Your task to perform on an android device: install app "Skype" Image 0: 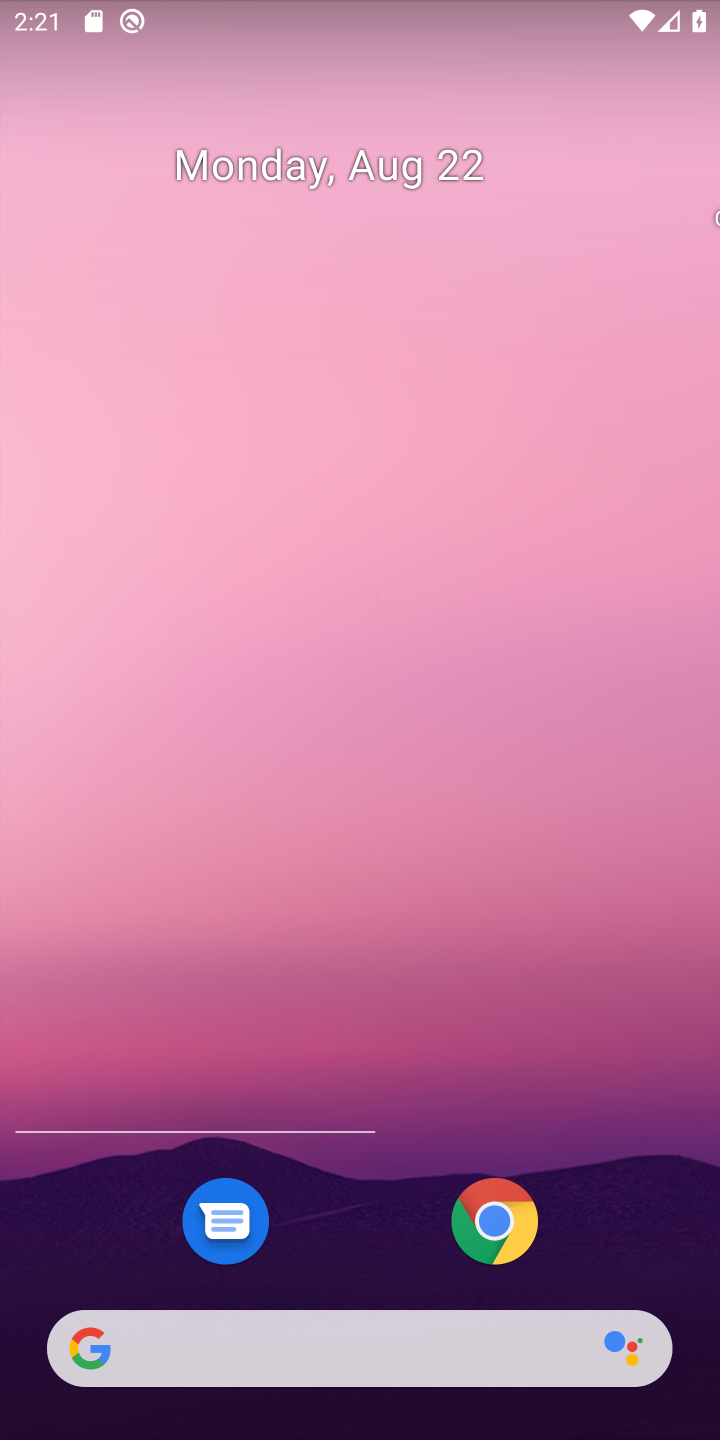
Step 0: press home button
Your task to perform on an android device: install app "Skype" Image 1: 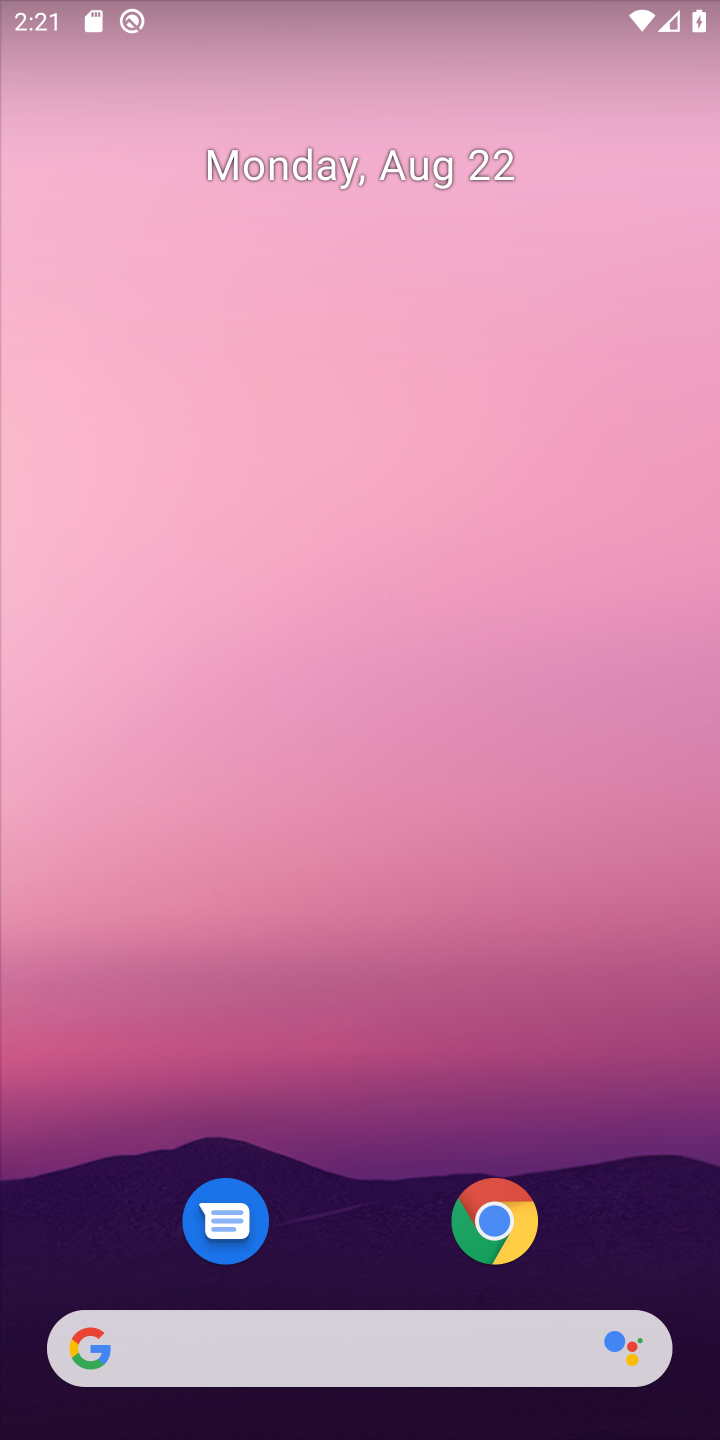
Step 1: drag from (363, 1230) to (329, 286)
Your task to perform on an android device: install app "Skype" Image 2: 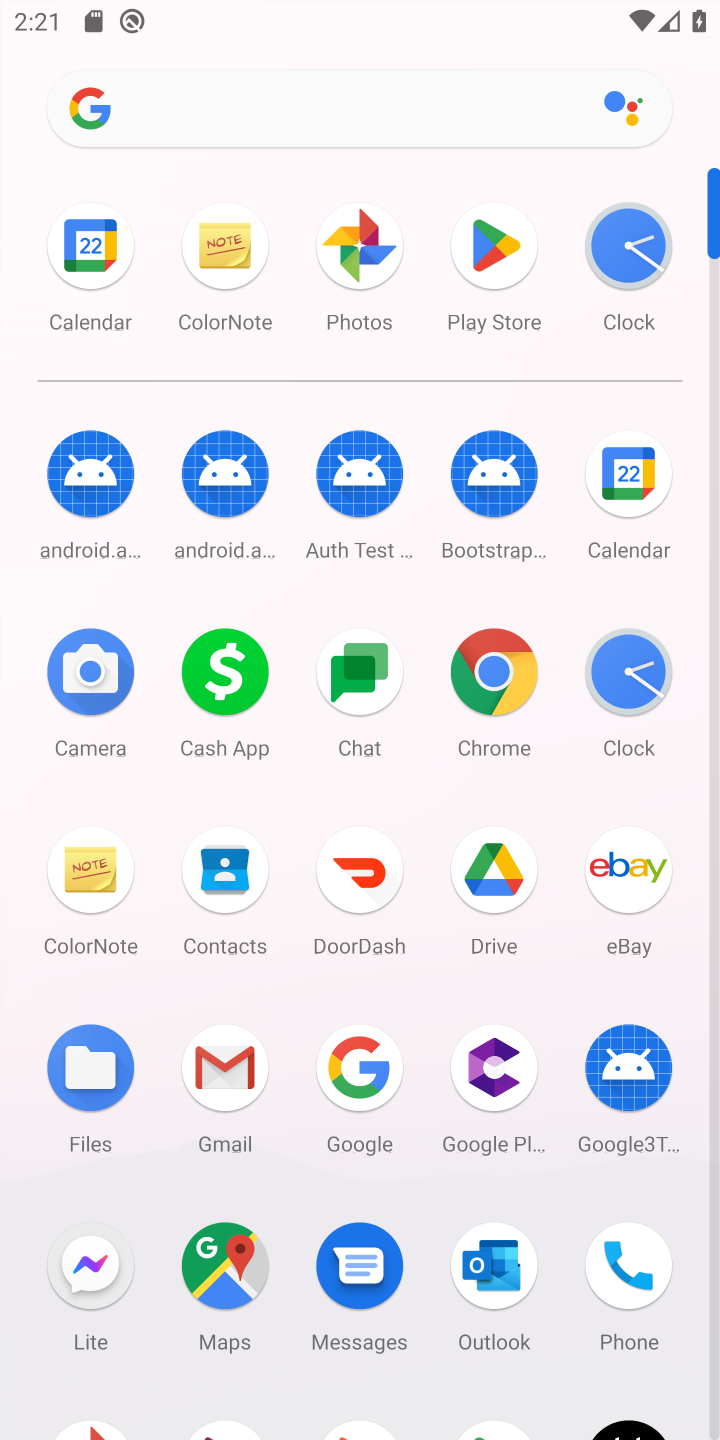
Step 2: click (495, 238)
Your task to perform on an android device: install app "Skype" Image 3: 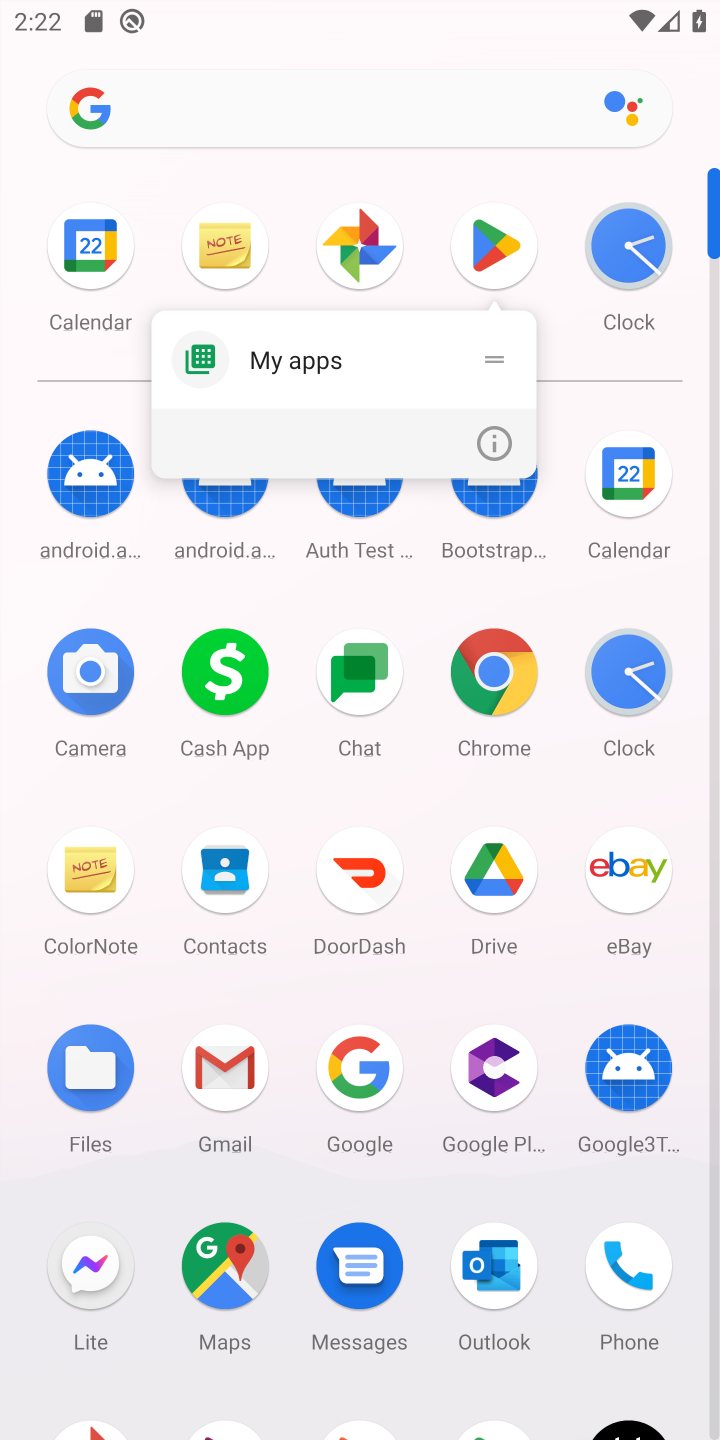
Step 3: click (495, 238)
Your task to perform on an android device: install app "Skype" Image 4: 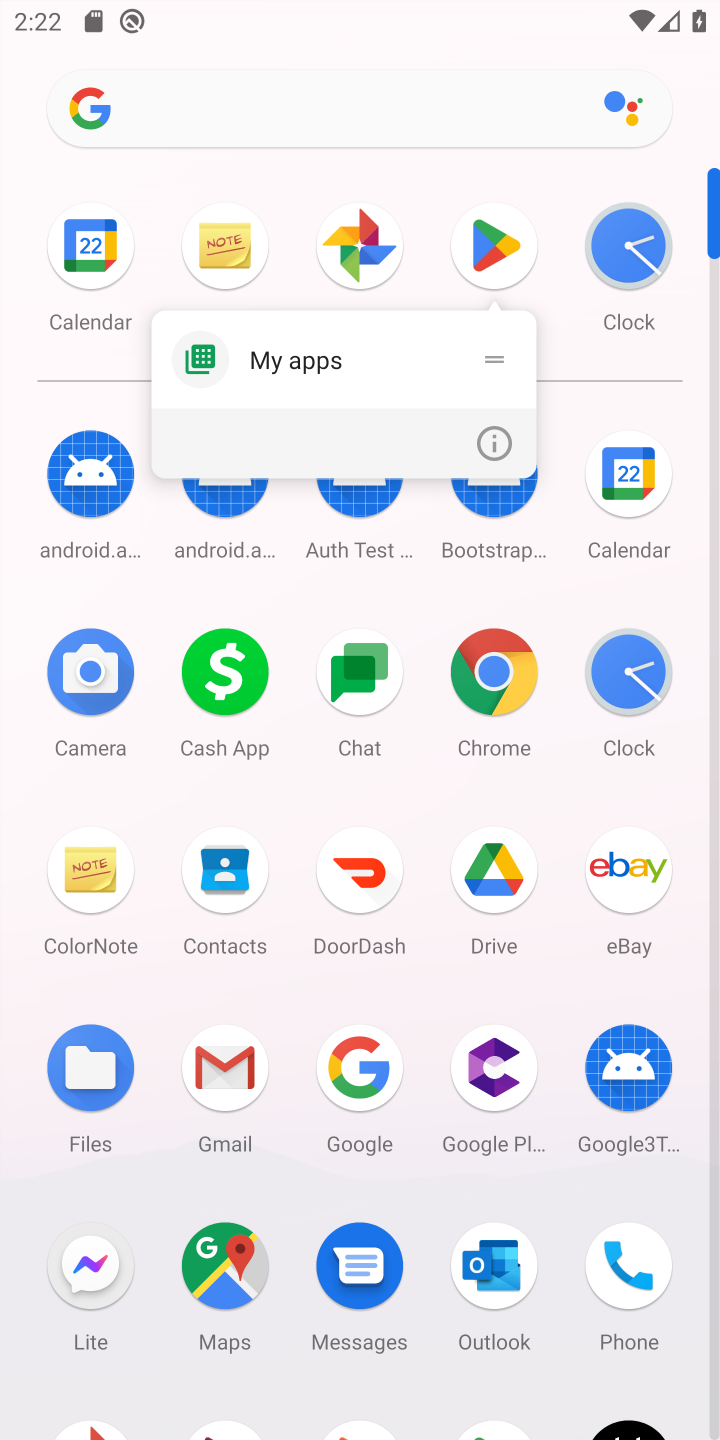
Step 4: drag from (312, 1199) to (391, 299)
Your task to perform on an android device: install app "Skype" Image 5: 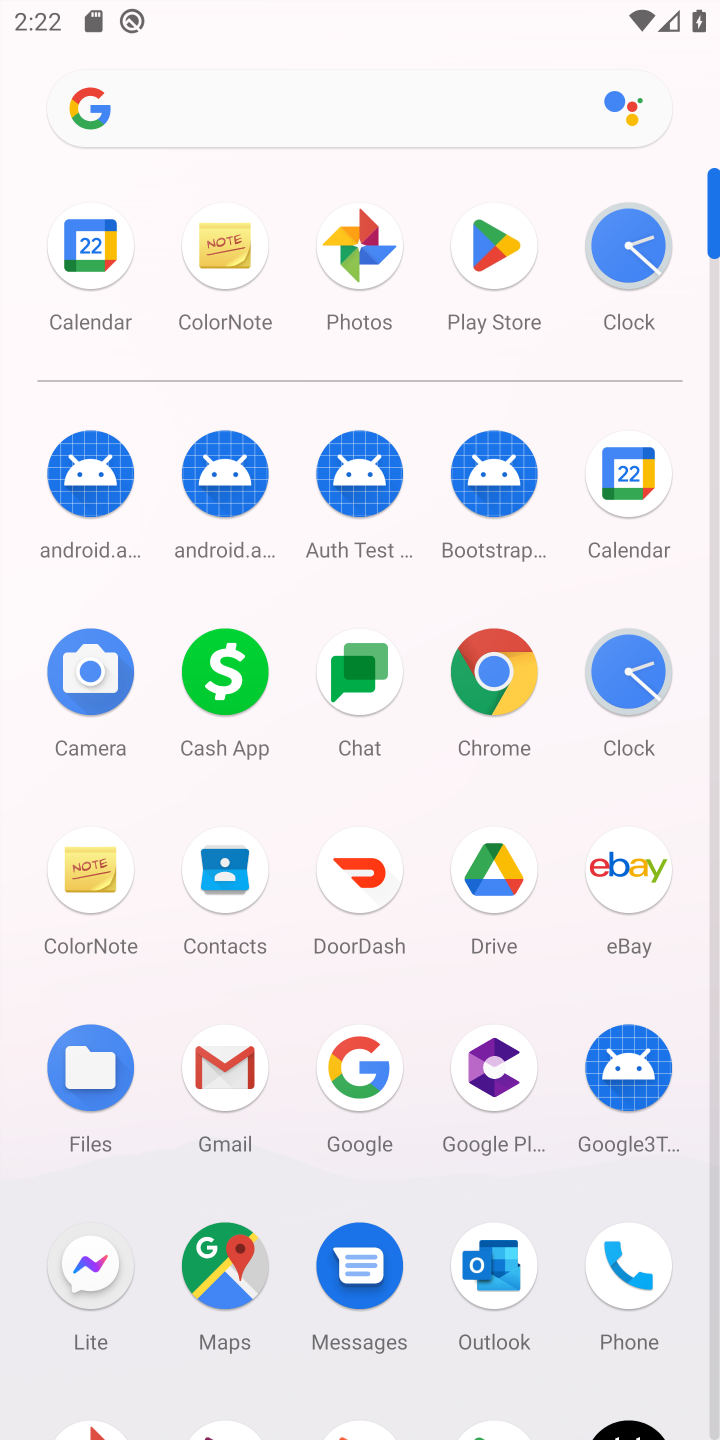
Step 5: drag from (434, 1164) to (422, 228)
Your task to perform on an android device: install app "Skype" Image 6: 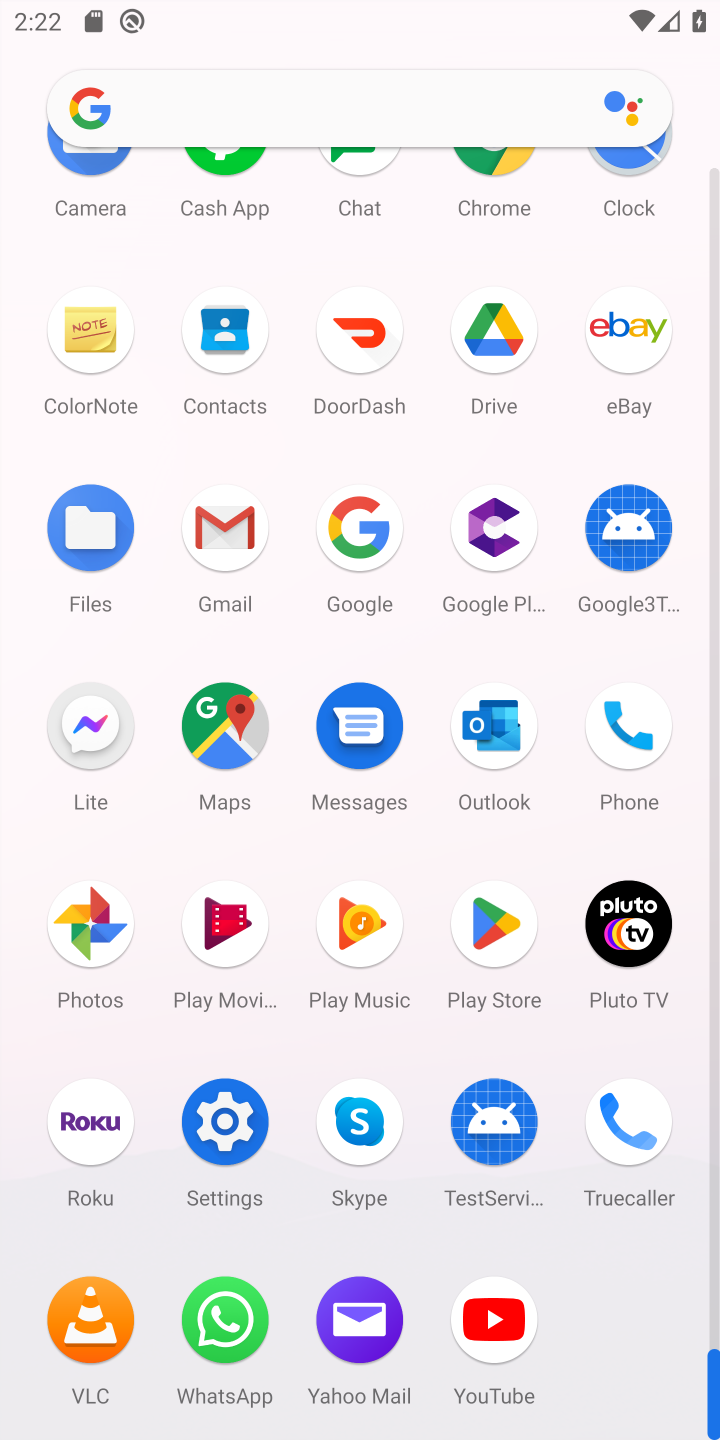
Step 6: click (497, 926)
Your task to perform on an android device: install app "Skype" Image 7: 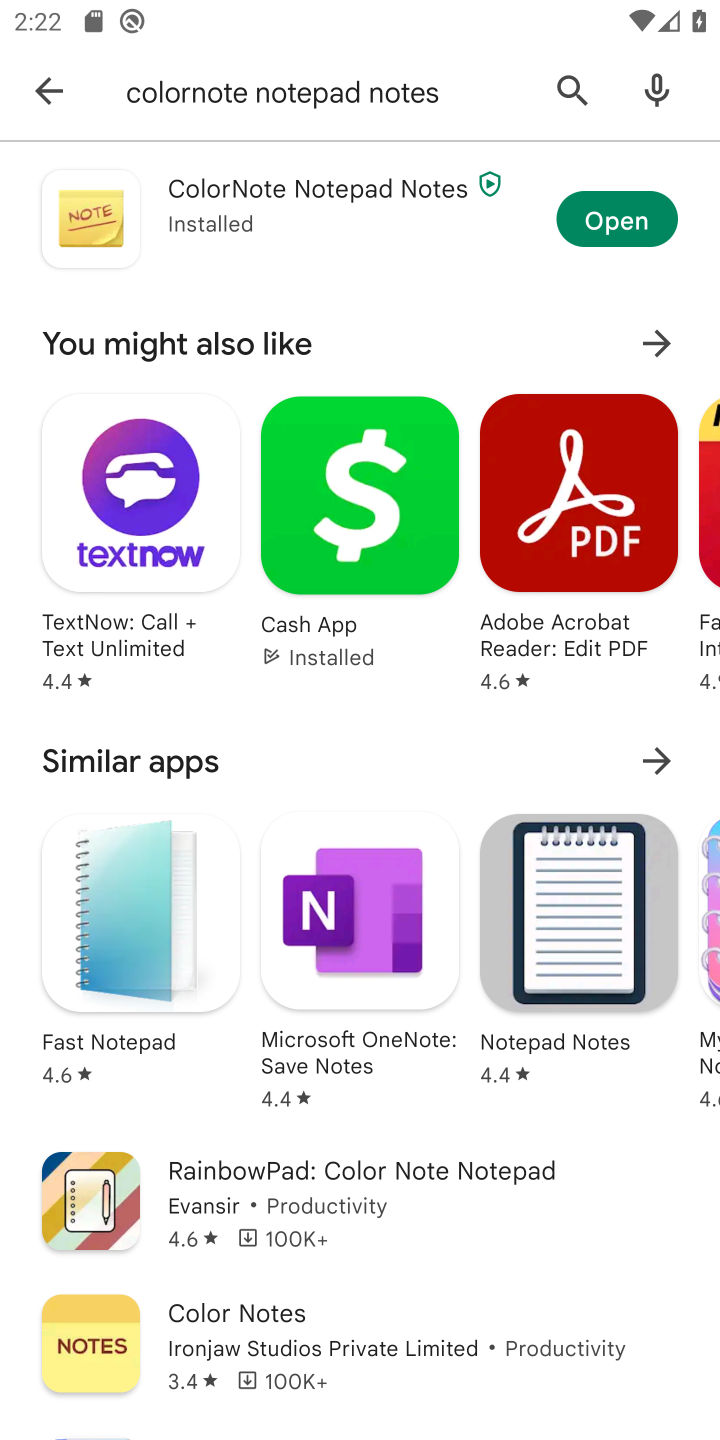
Step 7: click (549, 89)
Your task to perform on an android device: install app "Skype" Image 8: 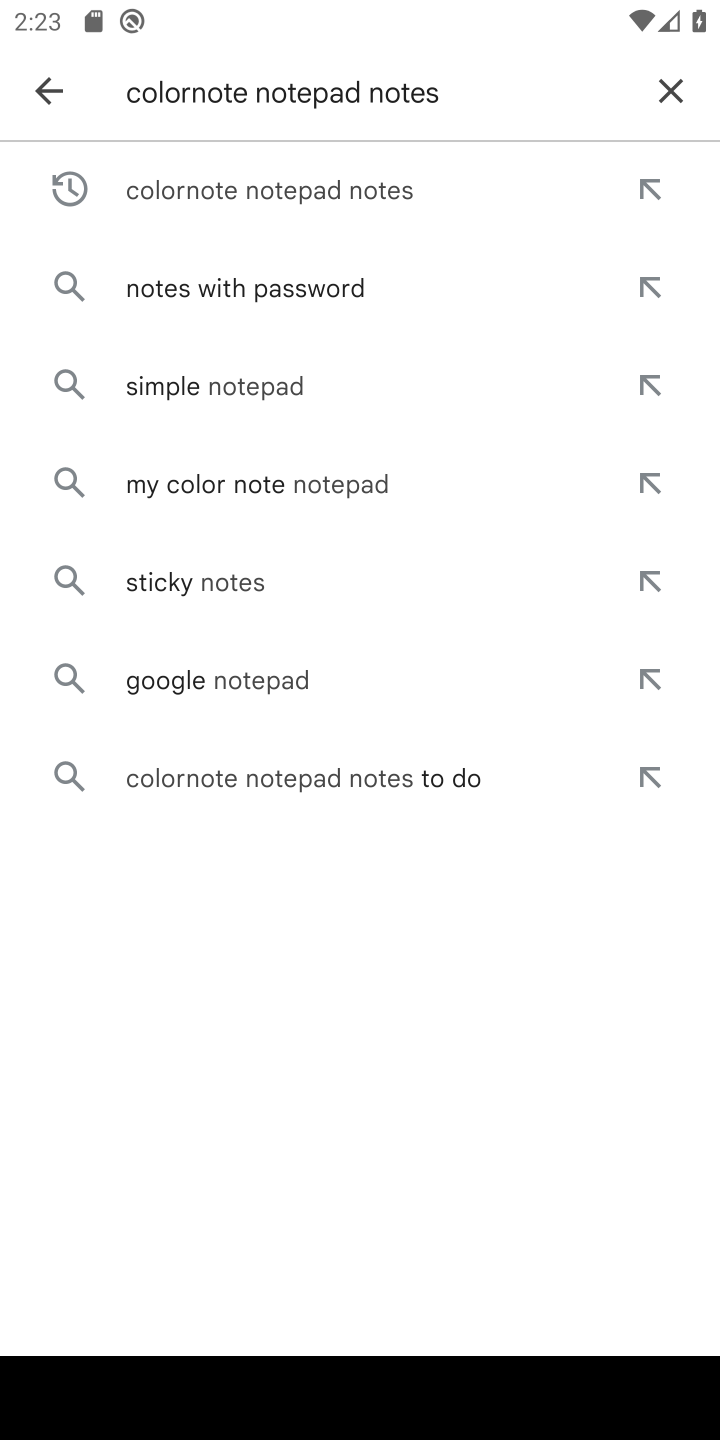
Step 8: click (657, 93)
Your task to perform on an android device: install app "Skype" Image 9: 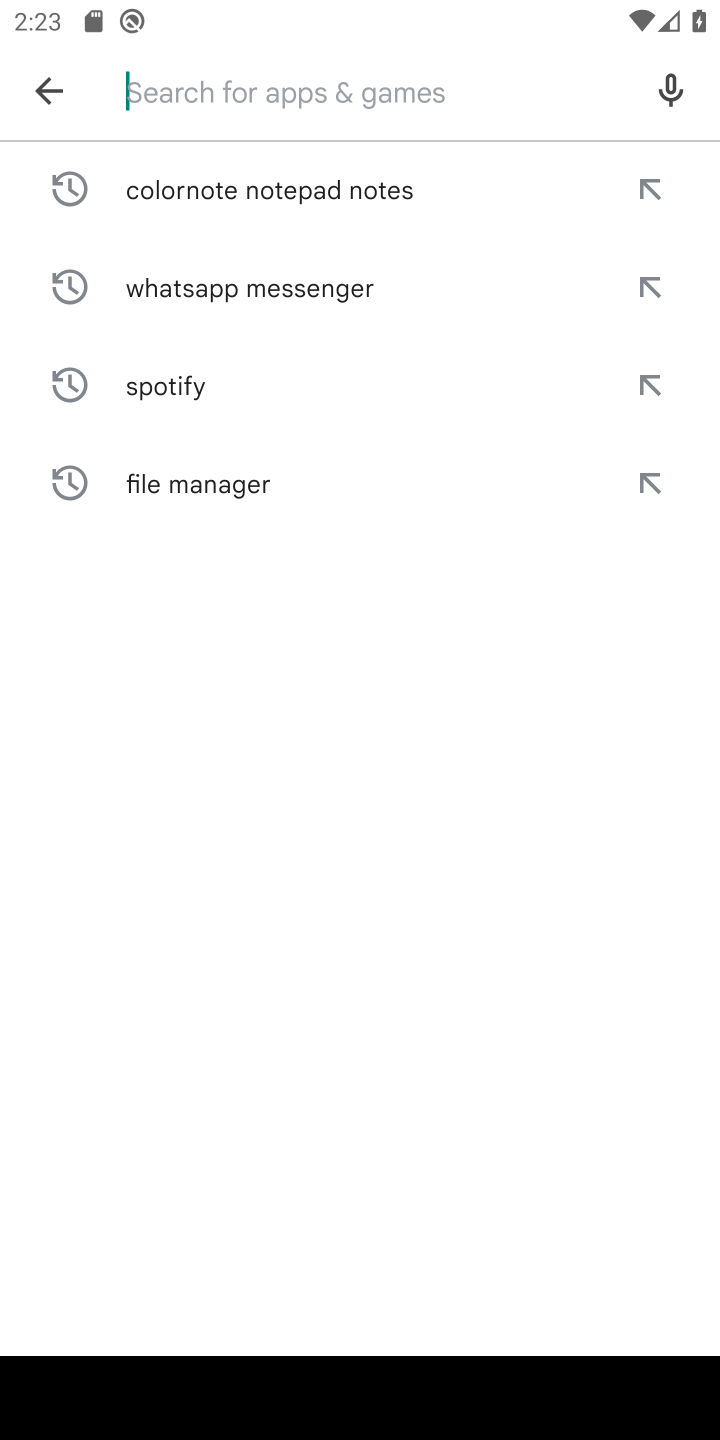
Step 9: type "Skype"
Your task to perform on an android device: install app "Skype" Image 10: 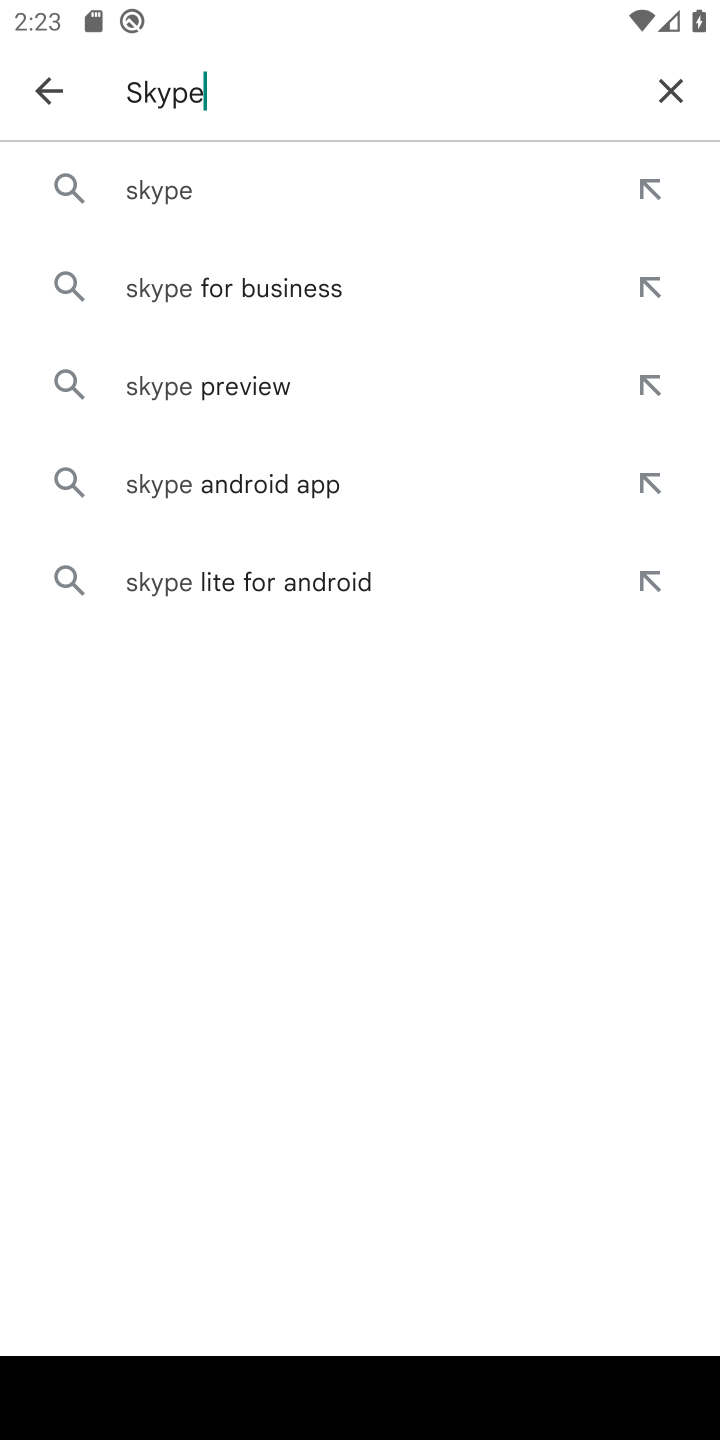
Step 10: click (225, 184)
Your task to perform on an android device: install app "Skype" Image 11: 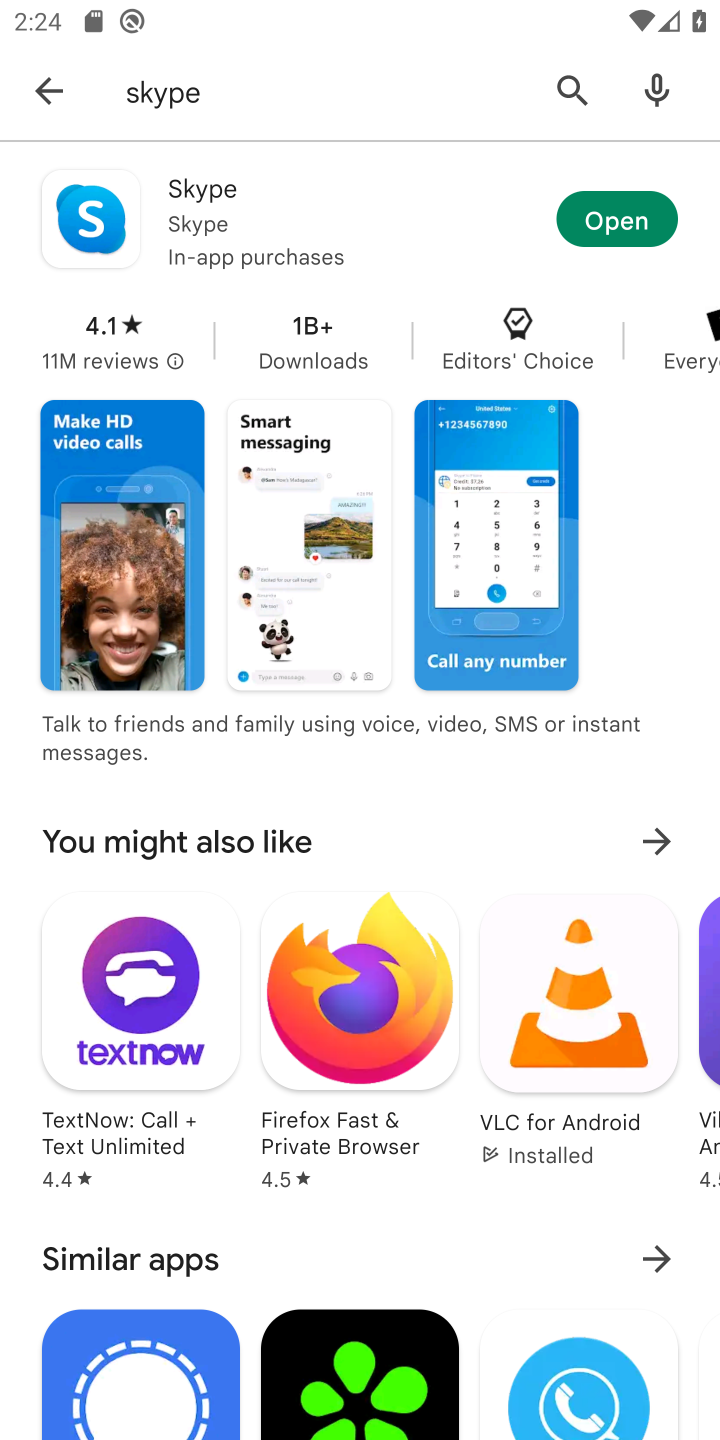
Step 11: click (609, 216)
Your task to perform on an android device: install app "Skype" Image 12: 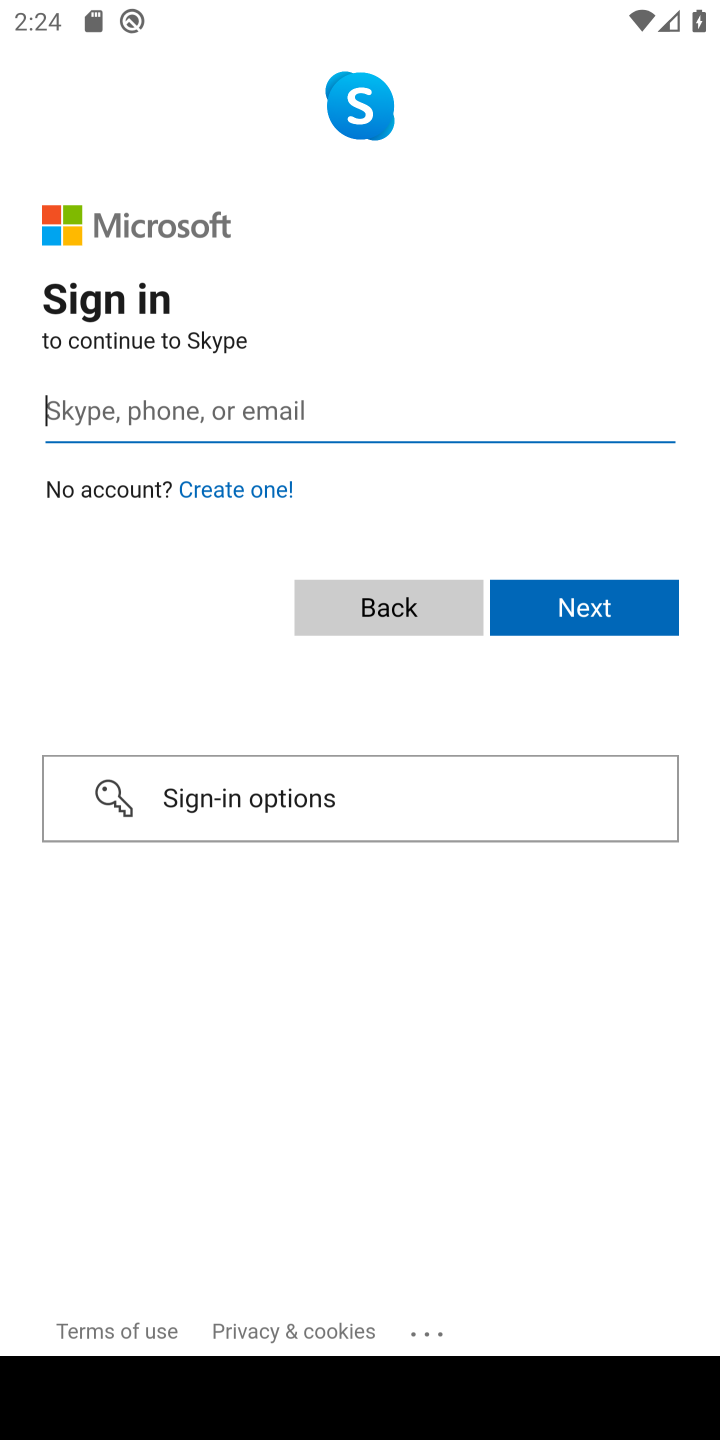
Step 12: task complete